Your task to perform on an android device: Open the Play Movies app and select the watchlist tab. Image 0: 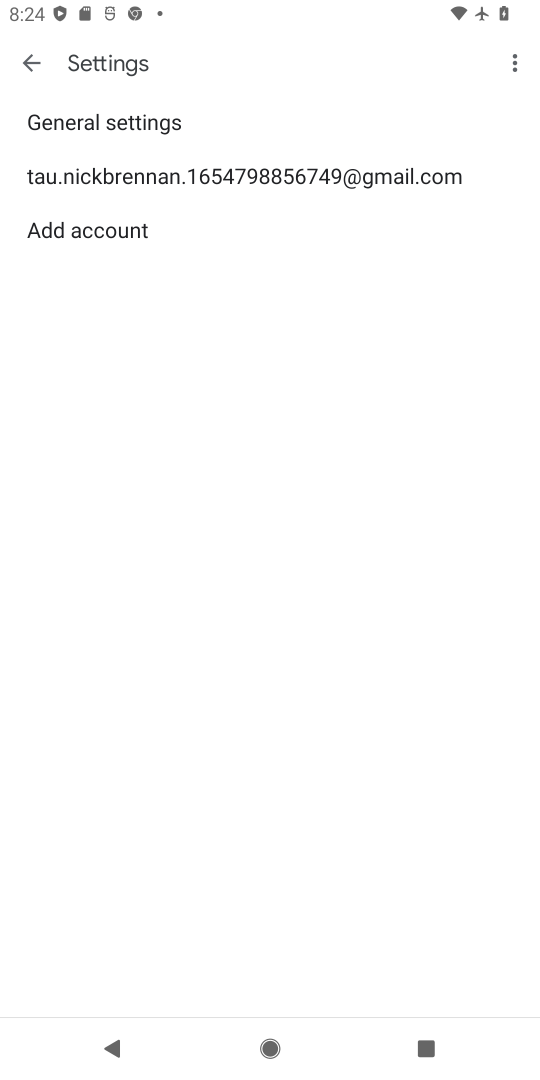
Step 0: press home button
Your task to perform on an android device: Open the Play Movies app and select the watchlist tab. Image 1: 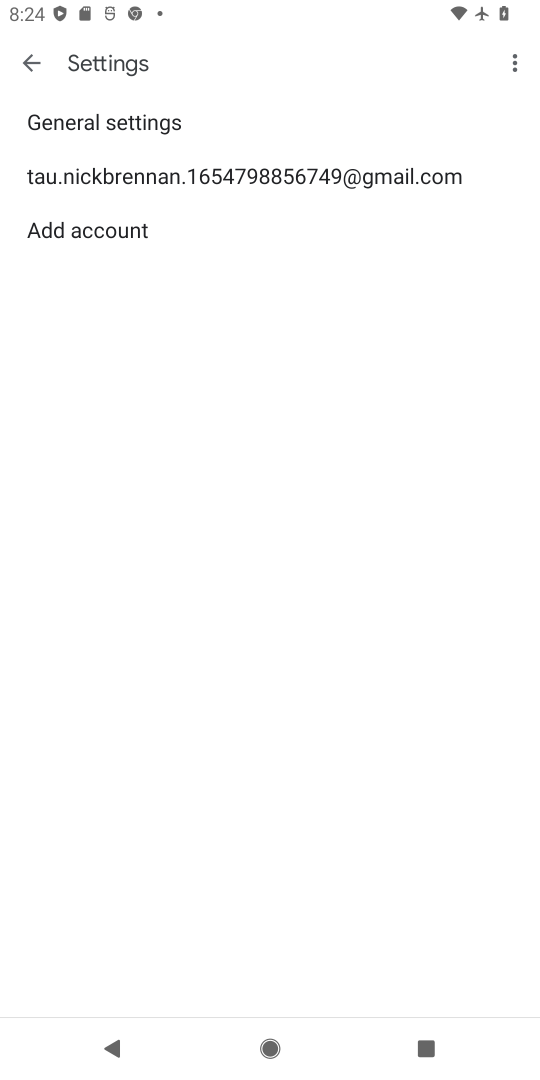
Step 1: press home button
Your task to perform on an android device: Open the Play Movies app and select the watchlist tab. Image 2: 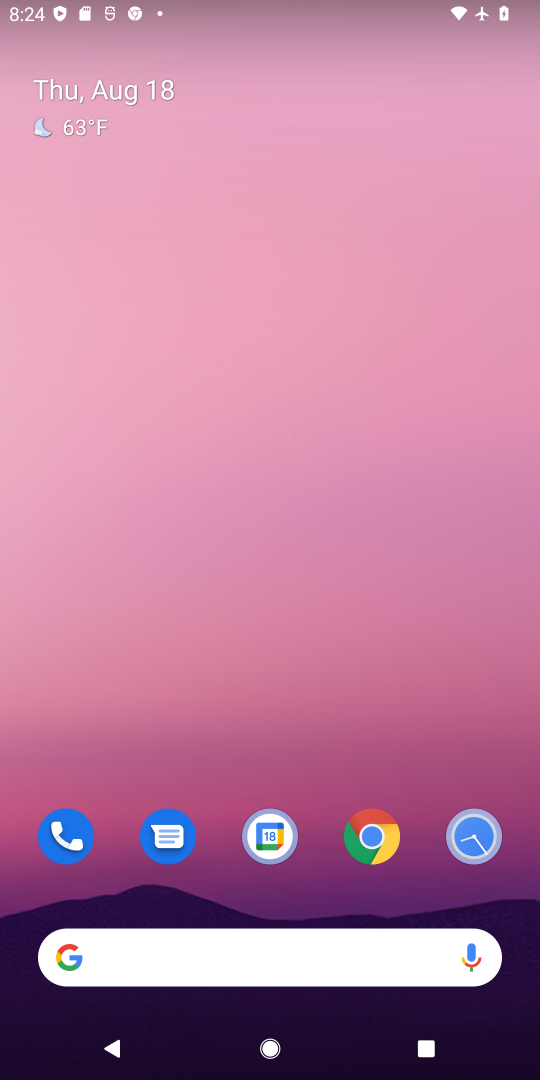
Step 2: drag from (209, 854) to (211, 86)
Your task to perform on an android device: Open the Play Movies app and select the watchlist tab. Image 3: 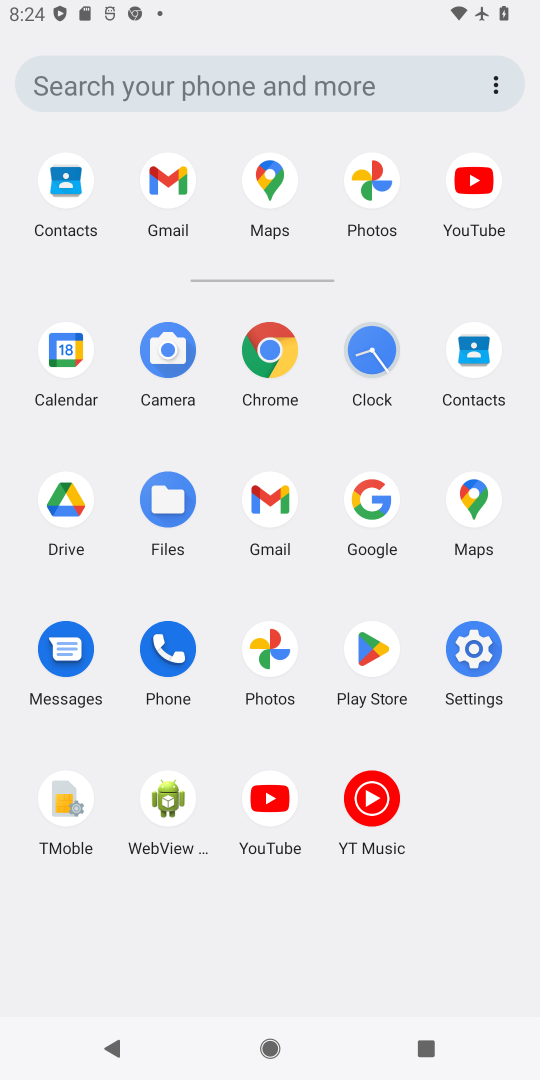
Step 3: click (374, 656)
Your task to perform on an android device: Open the Play Movies app and select the watchlist tab. Image 4: 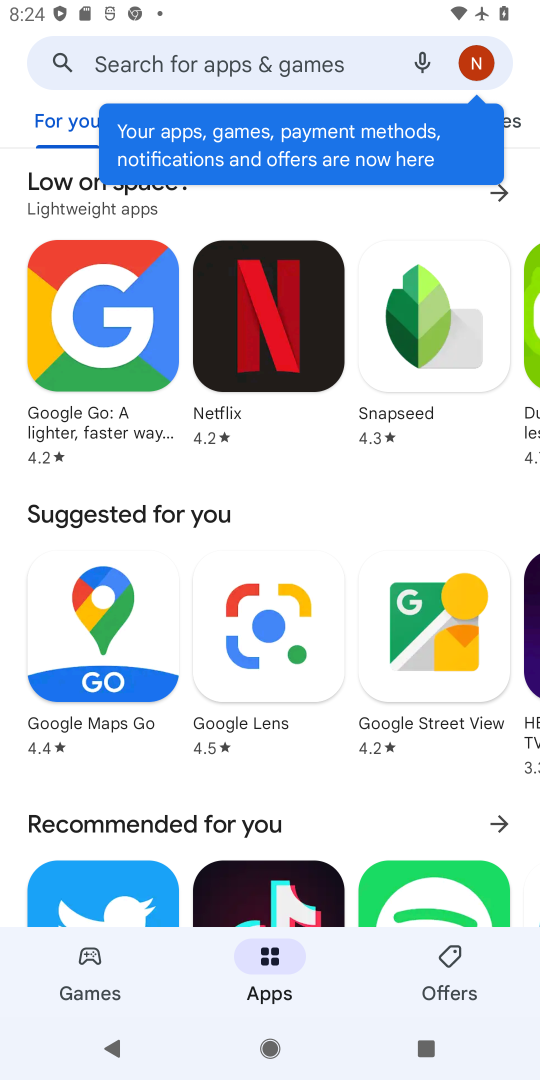
Step 4: click (302, 67)
Your task to perform on an android device: Open the Play Movies app and select the watchlist tab. Image 5: 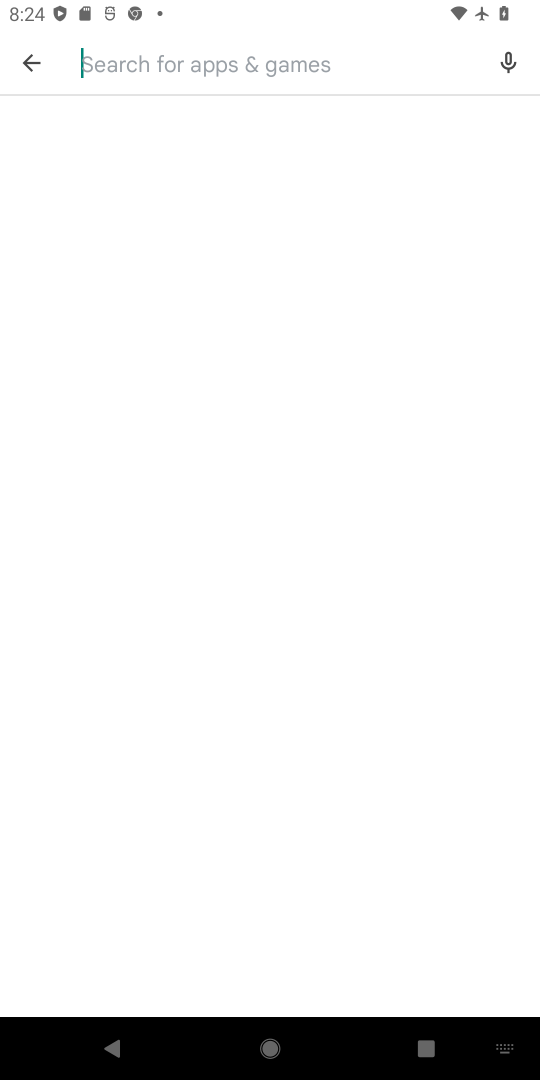
Step 5: type "Play Movies"
Your task to perform on an android device: Open the Play Movies app and select the watchlist tab. Image 6: 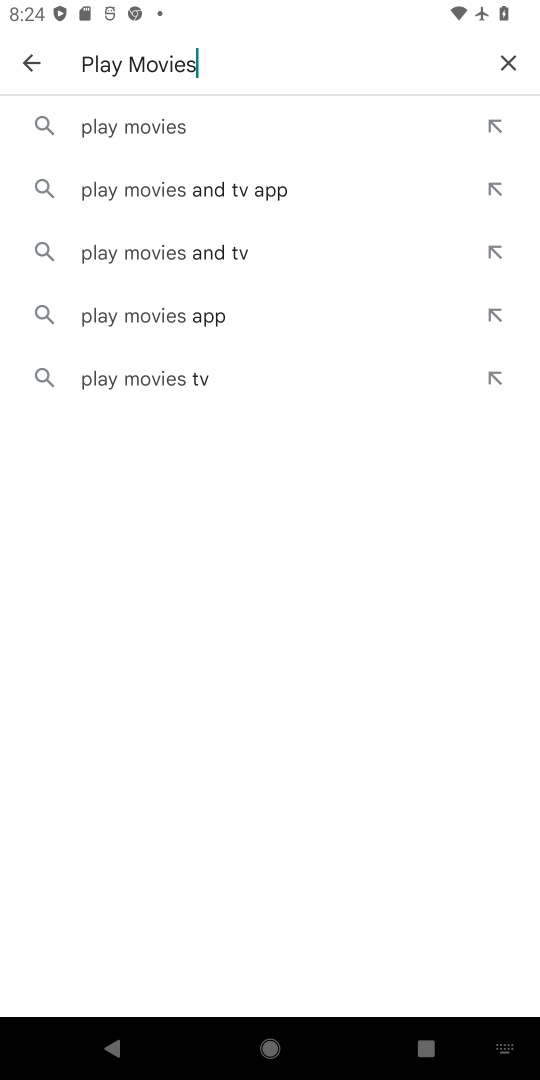
Step 6: press enter
Your task to perform on an android device: Open the Play Movies app and select the watchlist tab. Image 7: 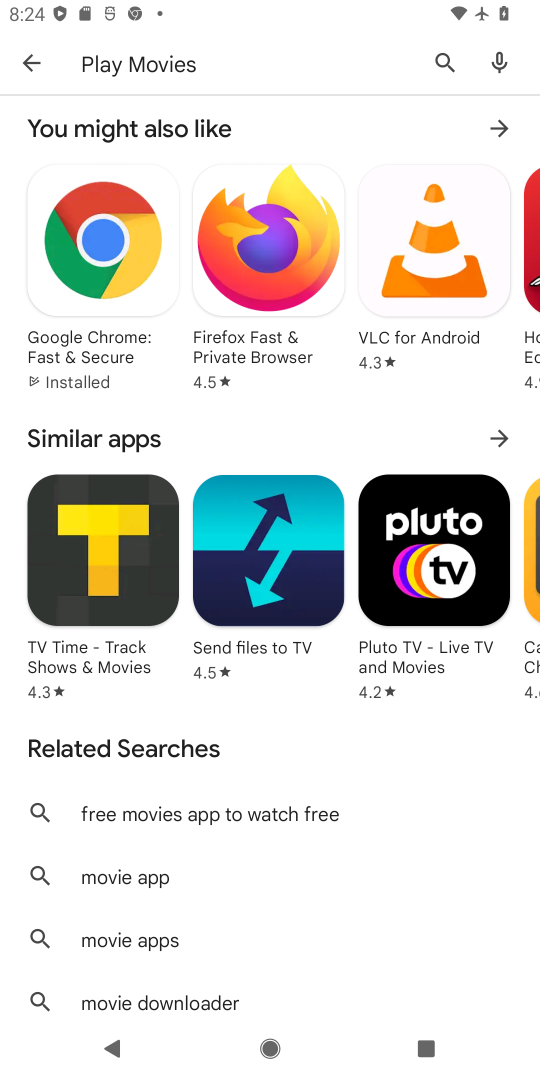
Step 7: task complete